Your task to perform on an android device: check google app version Image 0: 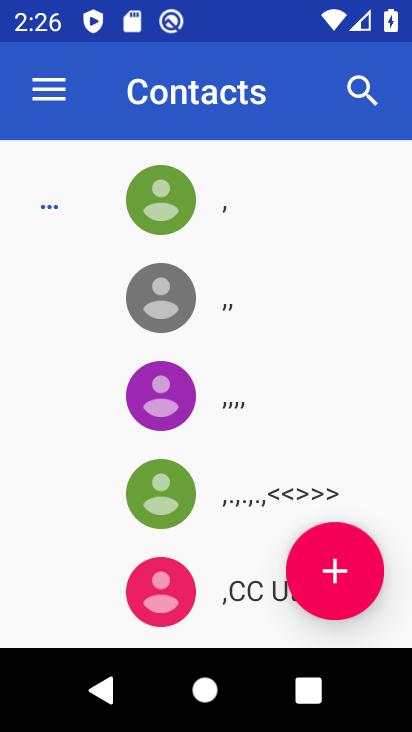
Step 0: click (247, 522)
Your task to perform on an android device: check google app version Image 1: 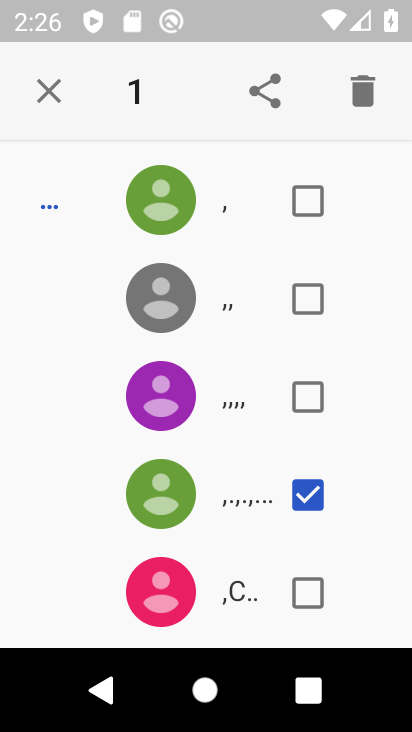
Step 1: press home button
Your task to perform on an android device: check google app version Image 2: 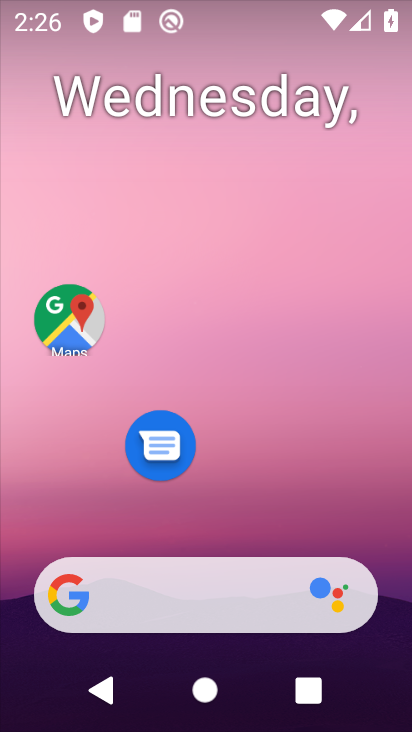
Step 2: click (77, 606)
Your task to perform on an android device: check google app version Image 3: 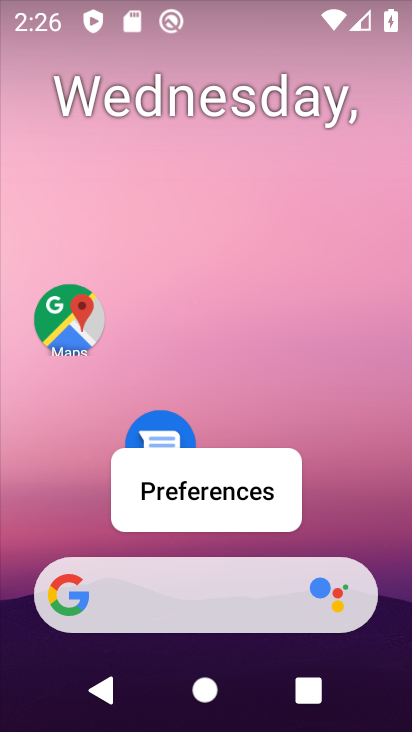
Step 3: click (69, 595)
Your task to perform on an android device: check google app version Image 4: 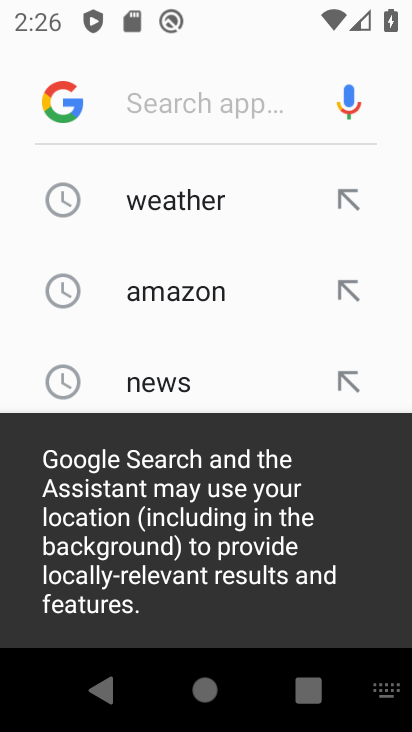
Step 4: click (77, 103)
Your task to perform on an android device: check google app version Image 5: 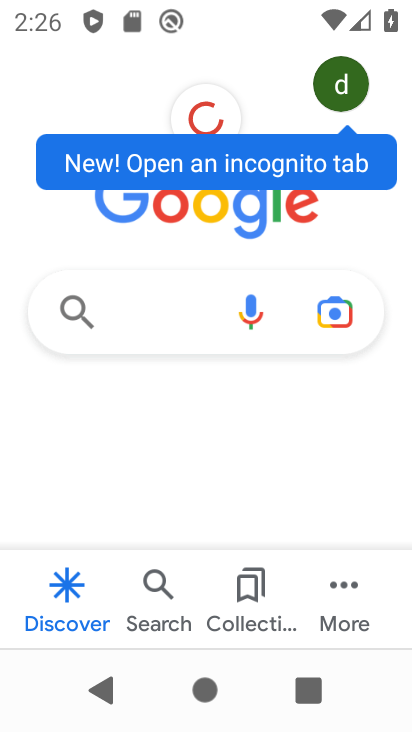
Step 5: click (334, 616)
Your task to perform on an android device: check google app version Image 6: 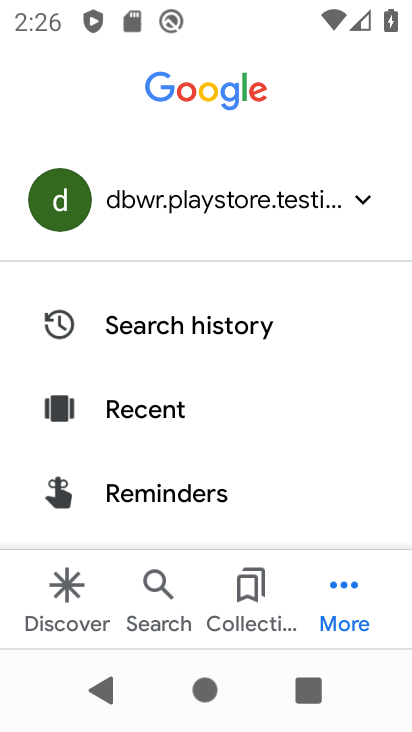
Step 6: drag from (226, 517) to (246, 184)
Your task to perform on an android device: check google app version Image 7: 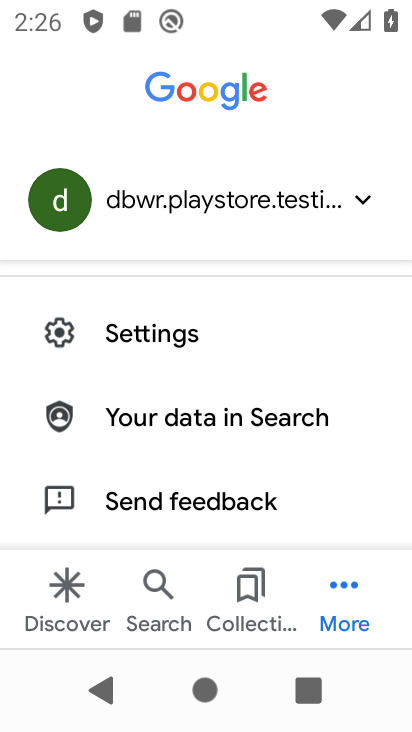
Step 7: drag from (203, 444) to (229, 177)
Your task to perform on an android device: check google app version Image 8: 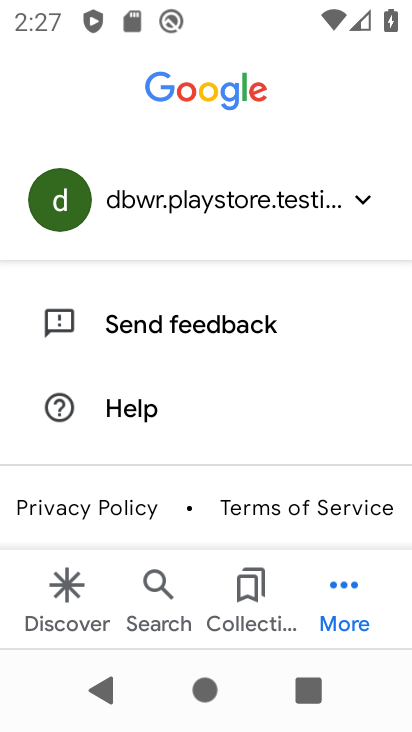
Step 8: drag from (249, 388) to (192, 587)
Your task to perform on an android device: check google app version Image 9: 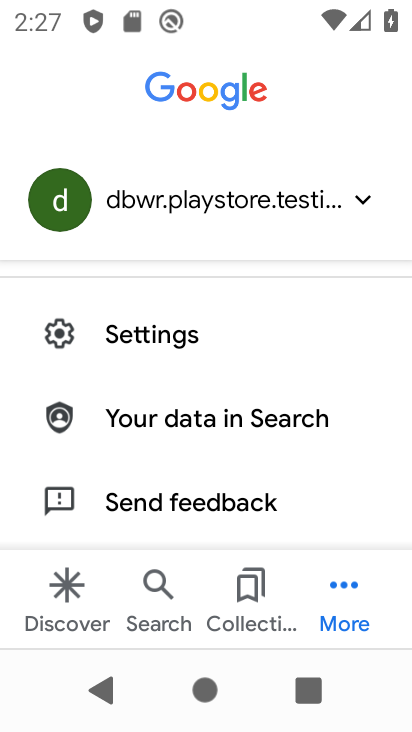
Step 9: click (139, 334)
Your task to perform on an android device: check google app version Image 10: 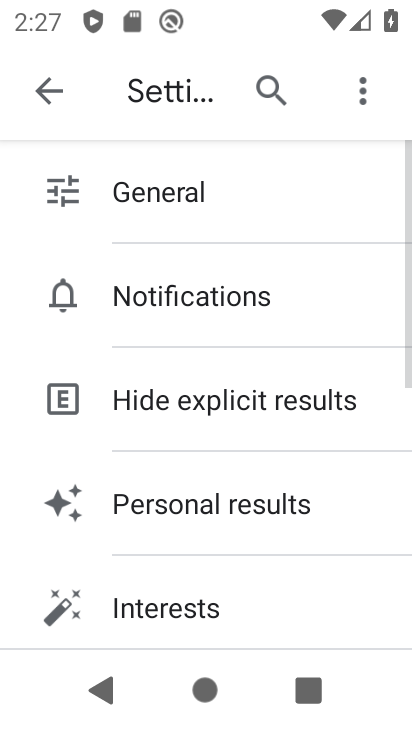
Step 10: drag from (161, 527) to (204, 169)
Your task to perform on an android device: check google app version Image 11: 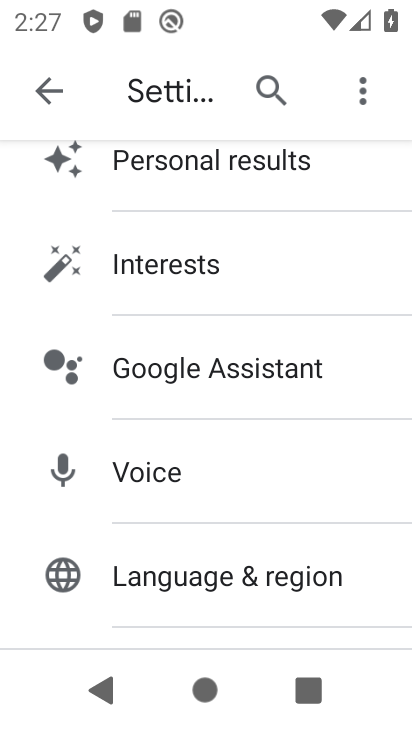
Step 11: drag from (212, 504) to (235, 227)
Your task to perform on an android device: check google app version Image 12: 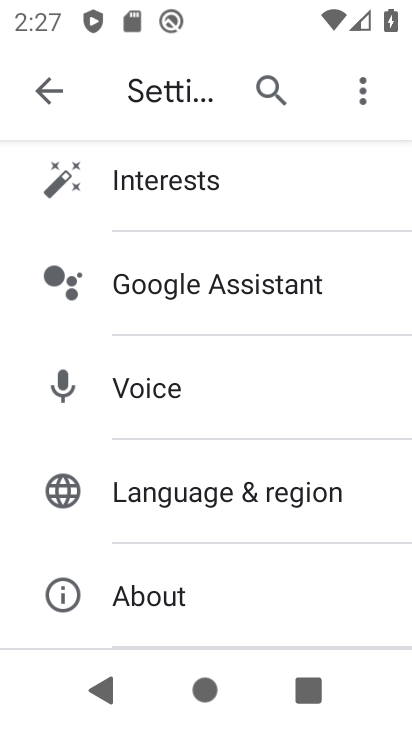
Step 12: click (144, 596)
Your task to perform on an android device: check google app version Image 13: 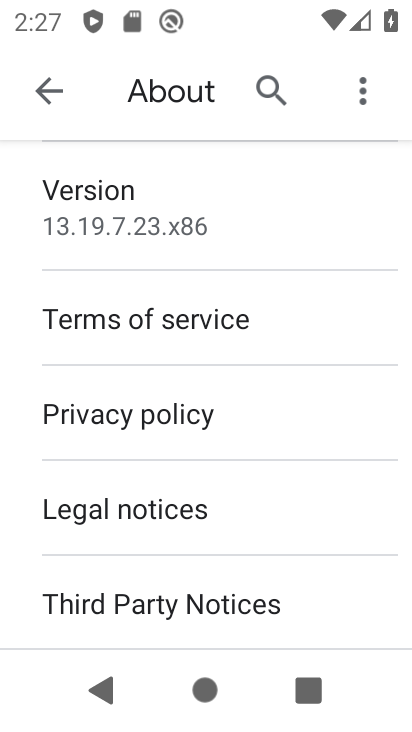
Step 13: task complete